Your task to perform on an android device: Open settings Image 0: 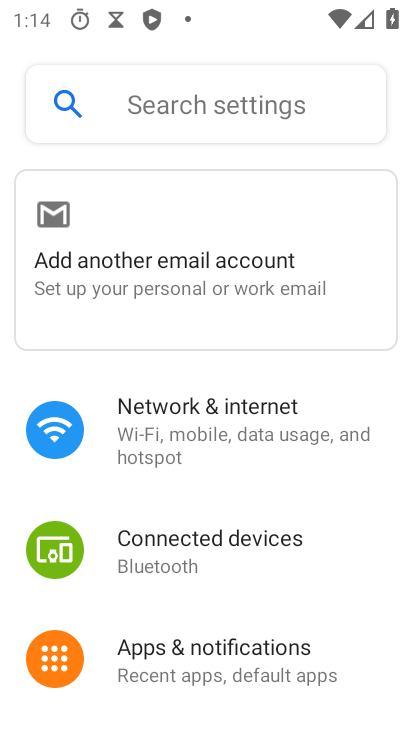
Step 0: press home button
Your task to perform on an android device: Open settings Image 1: 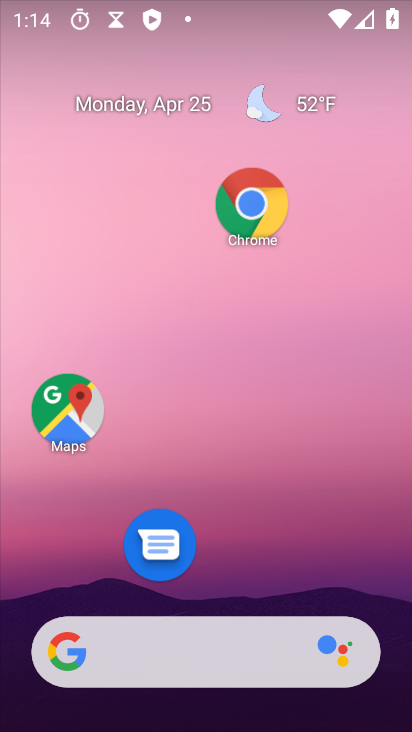
Step 1: drag from (329, 684) to (377, 250)
Your task to perform on an android device: Open settings Image 2: 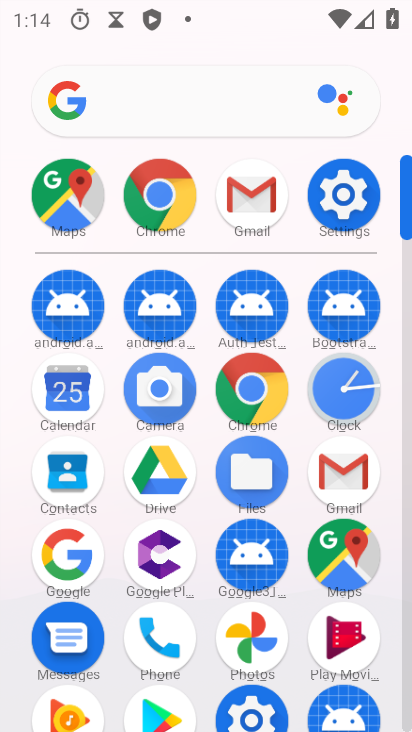
Step 2: click (339, 190)
Your task to perform on an android device: Open settings Image 3: 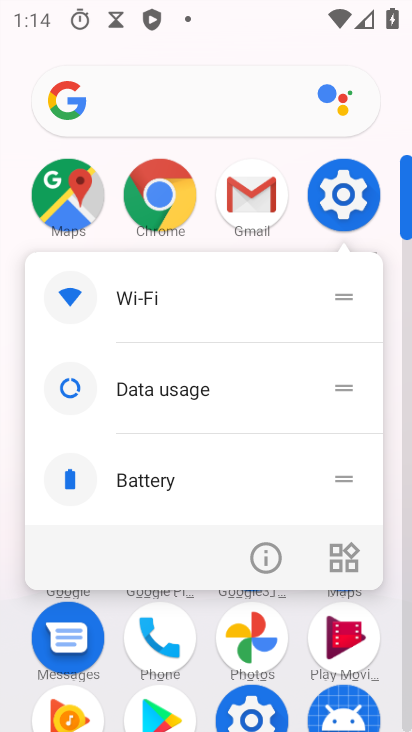
Step 3: click (337, 192)
Your task to perform on an android device: Open settings Image 4: 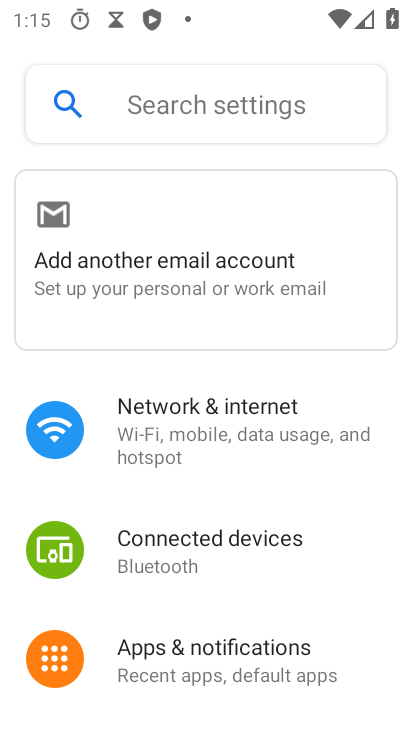
Step 4: task complete